Your task to perform on an android device: open app "Roku - Official Remote Control" (install if not already installed) Image 0: 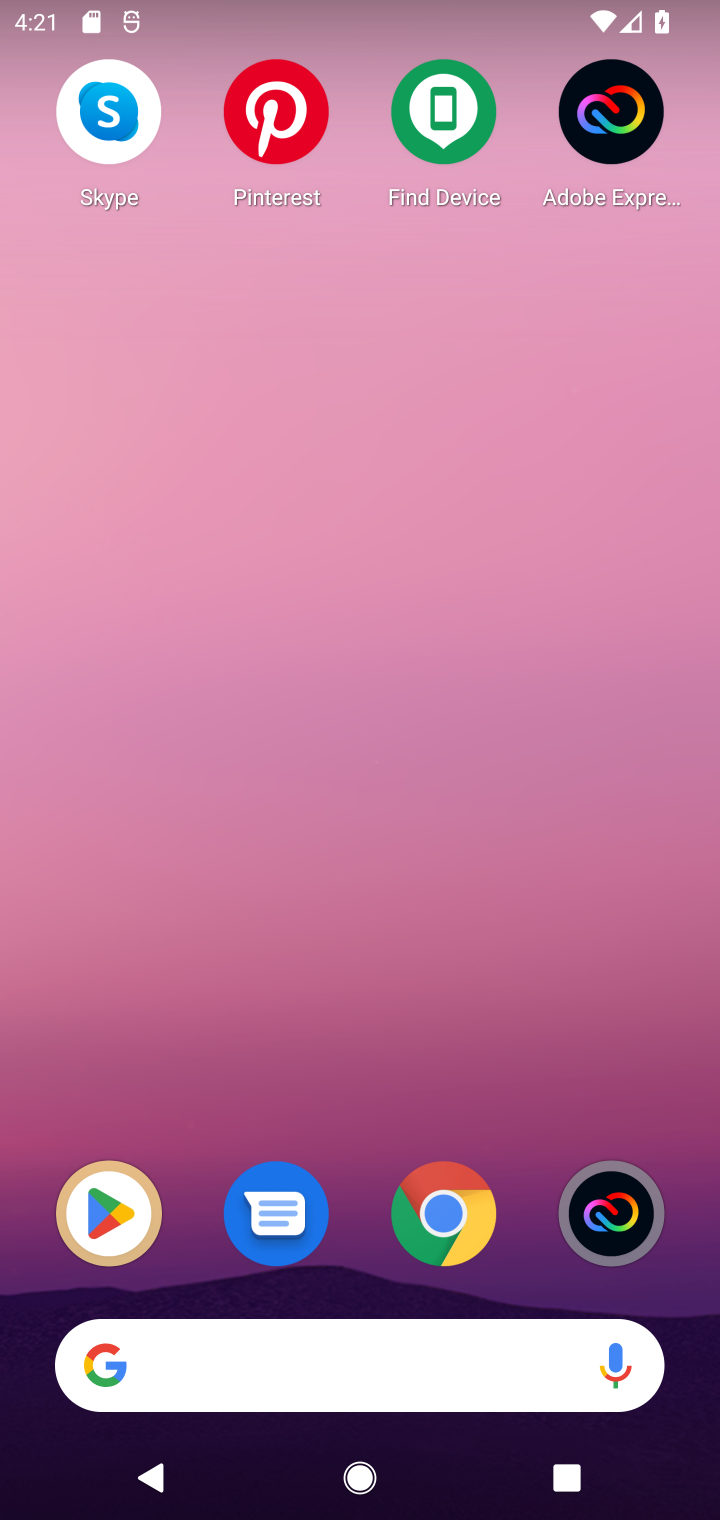
Step 0: press home button
Your task to perform on an android device: open app "Roku - Official Remote Control" (install if not already installed) Image 1: 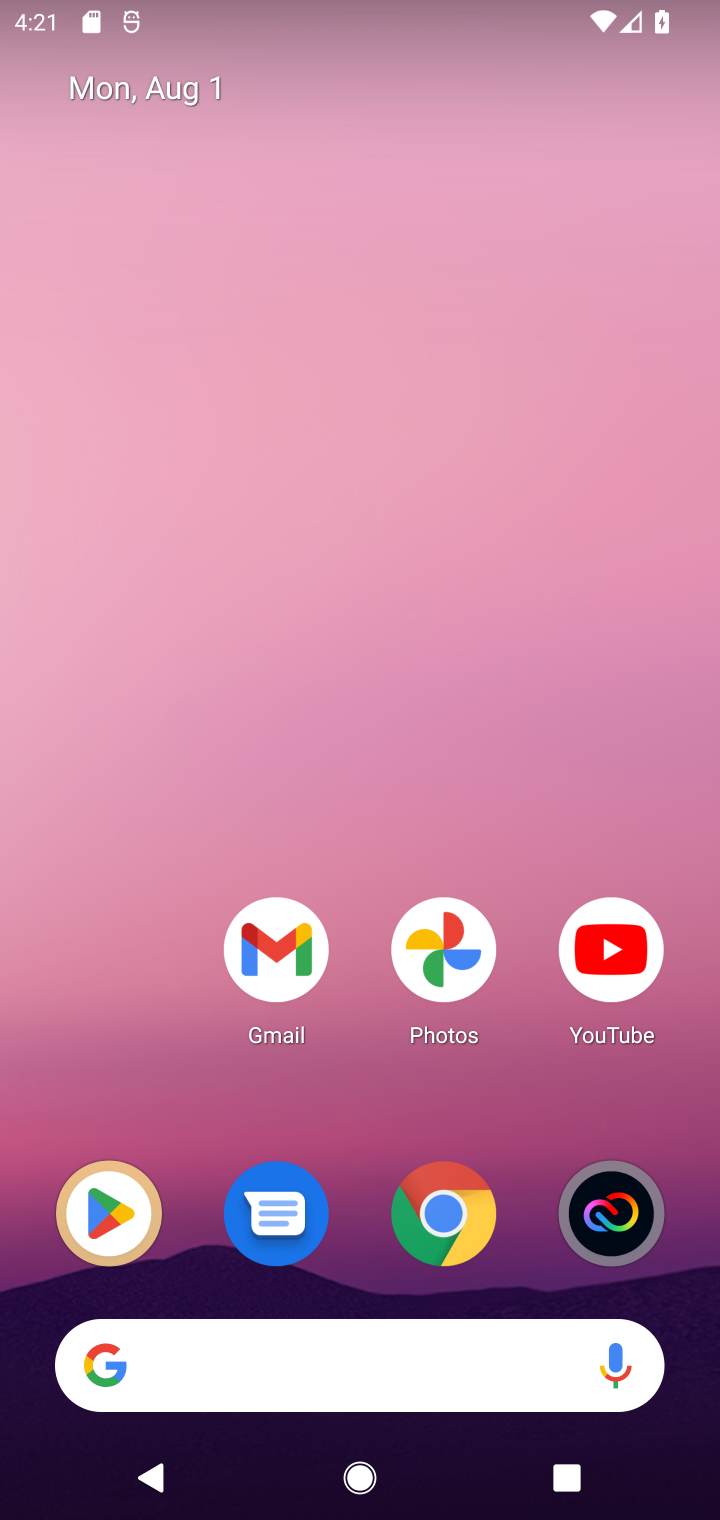
Step 1: drag from (546, 1026) to (552, 2)
Your task to perform on an android device: open app "Roku - Official Remote Control" (install if not already installed) Image 2: 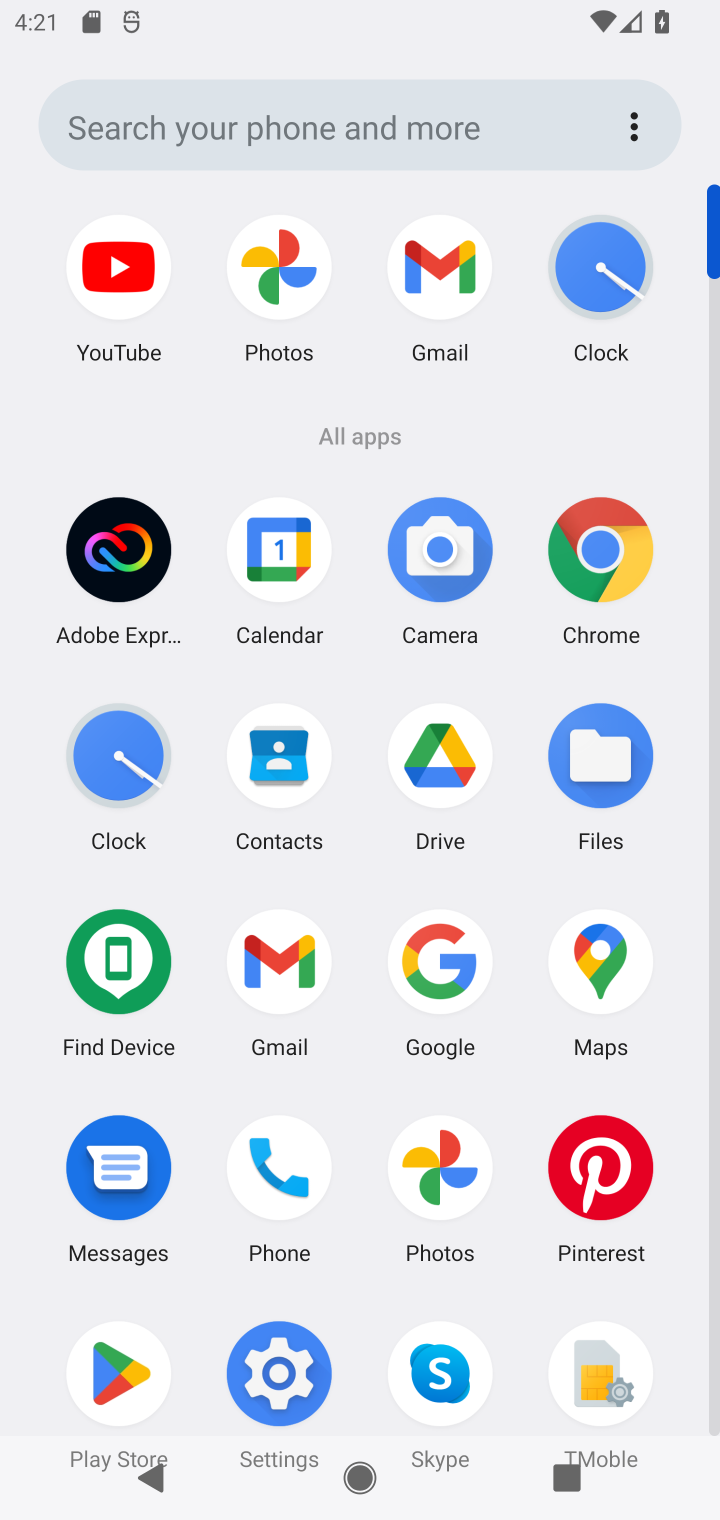
Step 2: drag from (510, 1091) to (656, 235)
Your task to perform on an android device: open app "Roku - Official Remote Control" (install if not already installed) Image 3: 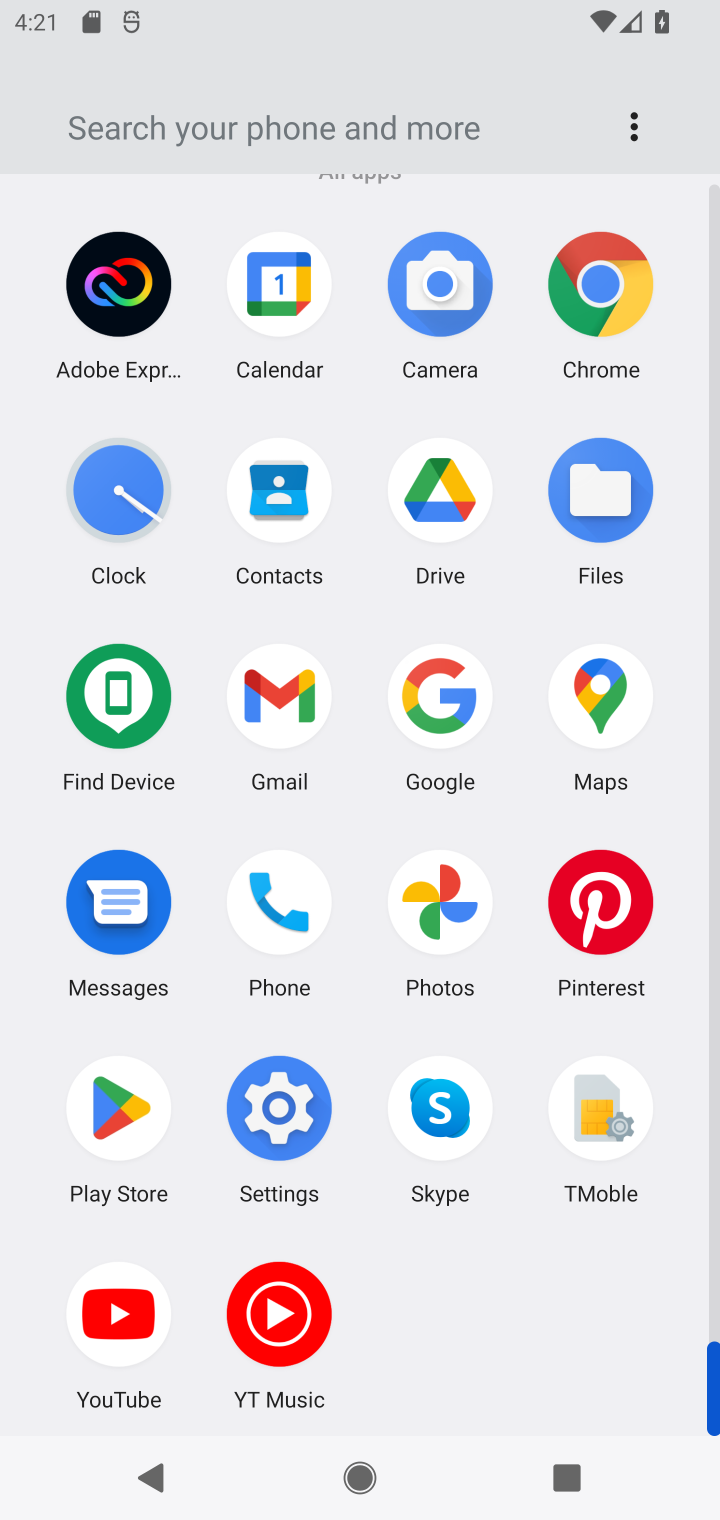
Step 3: click (120, 1101)
Your task to perform on an android device: open app "Roku - Official Remote Control" (install if not already installed) Image 4: 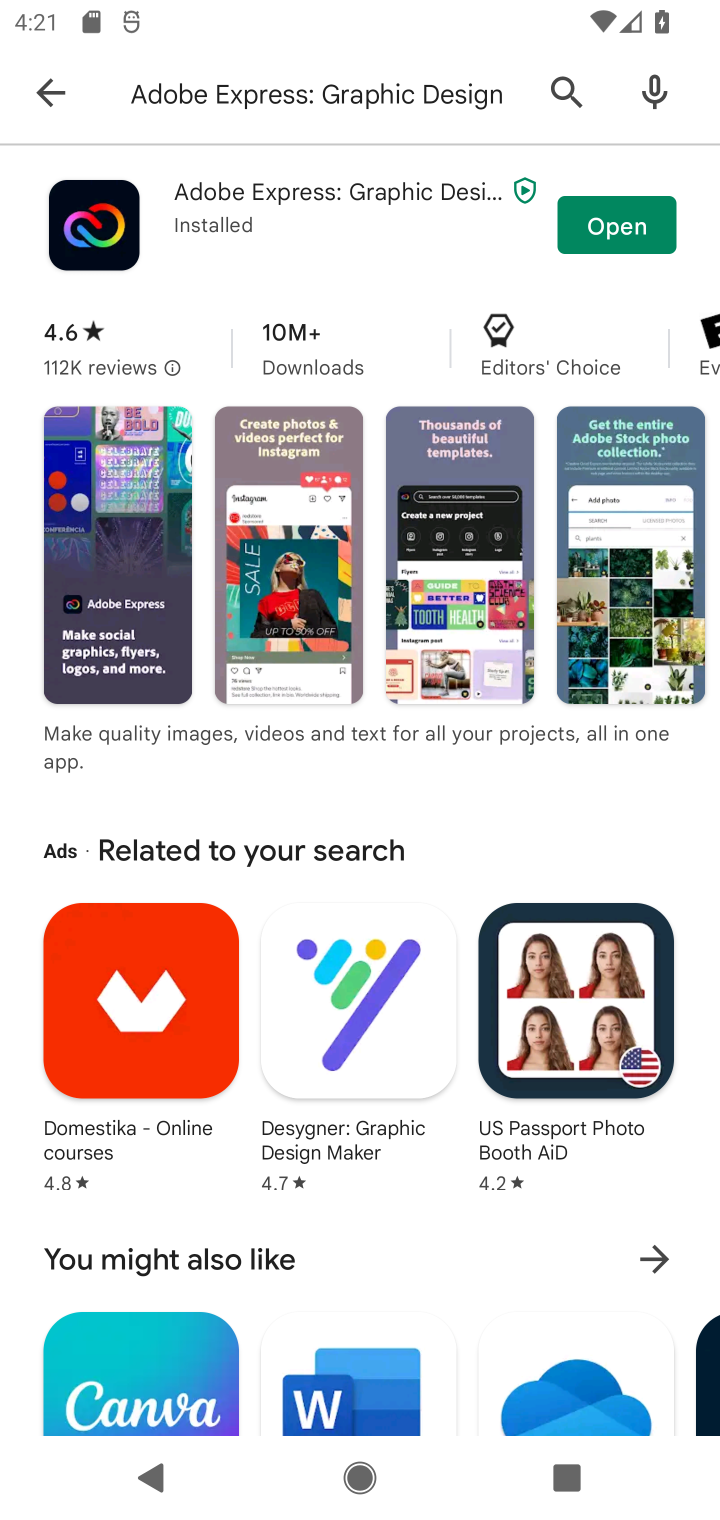
Step 4: click (427, 97)
Your task to perform on an android device: open app "Roku - Official Remote Control" (install if not already installed) Image 5: 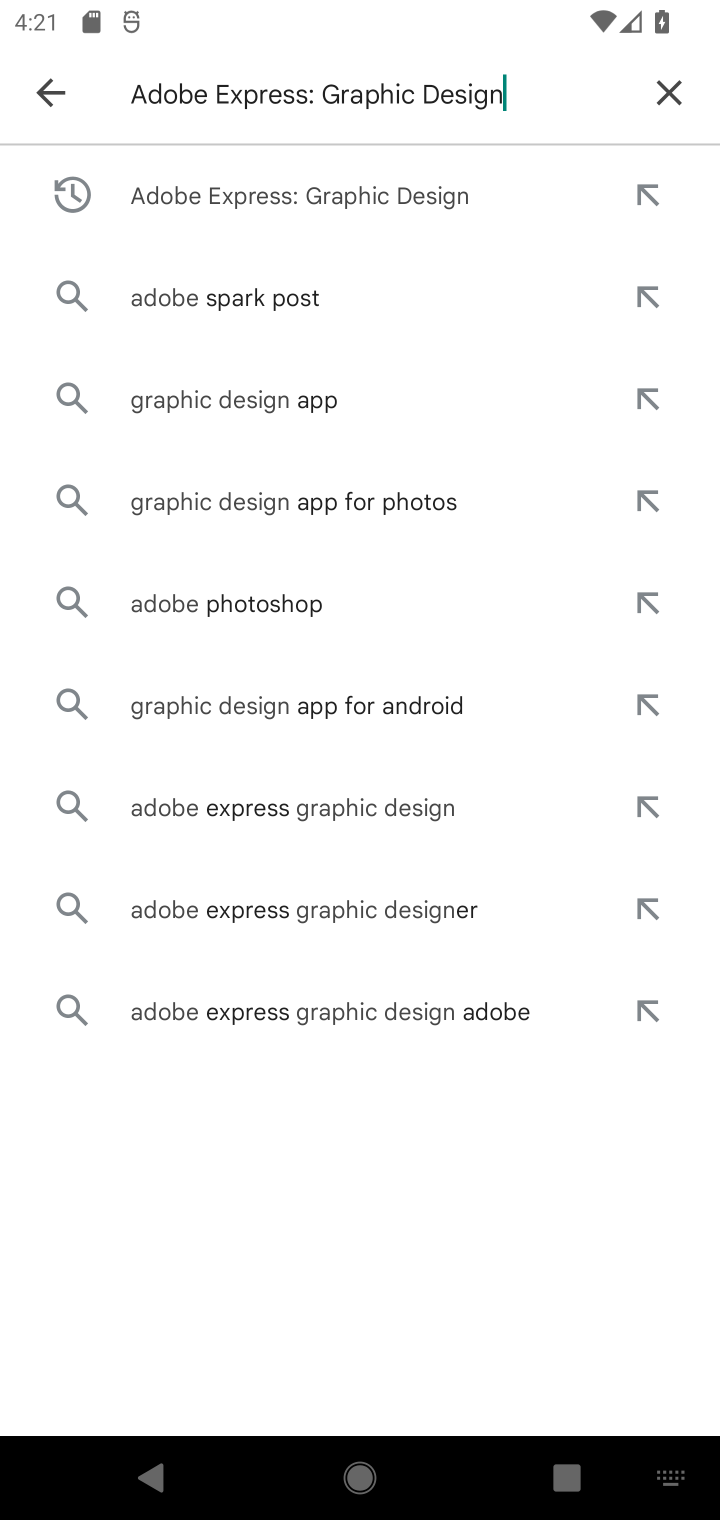
Step 5: click (694, 93)
Your task to perform on an android device: open app "Roku - Official Remote Control" (install if not already installed) Image 6: 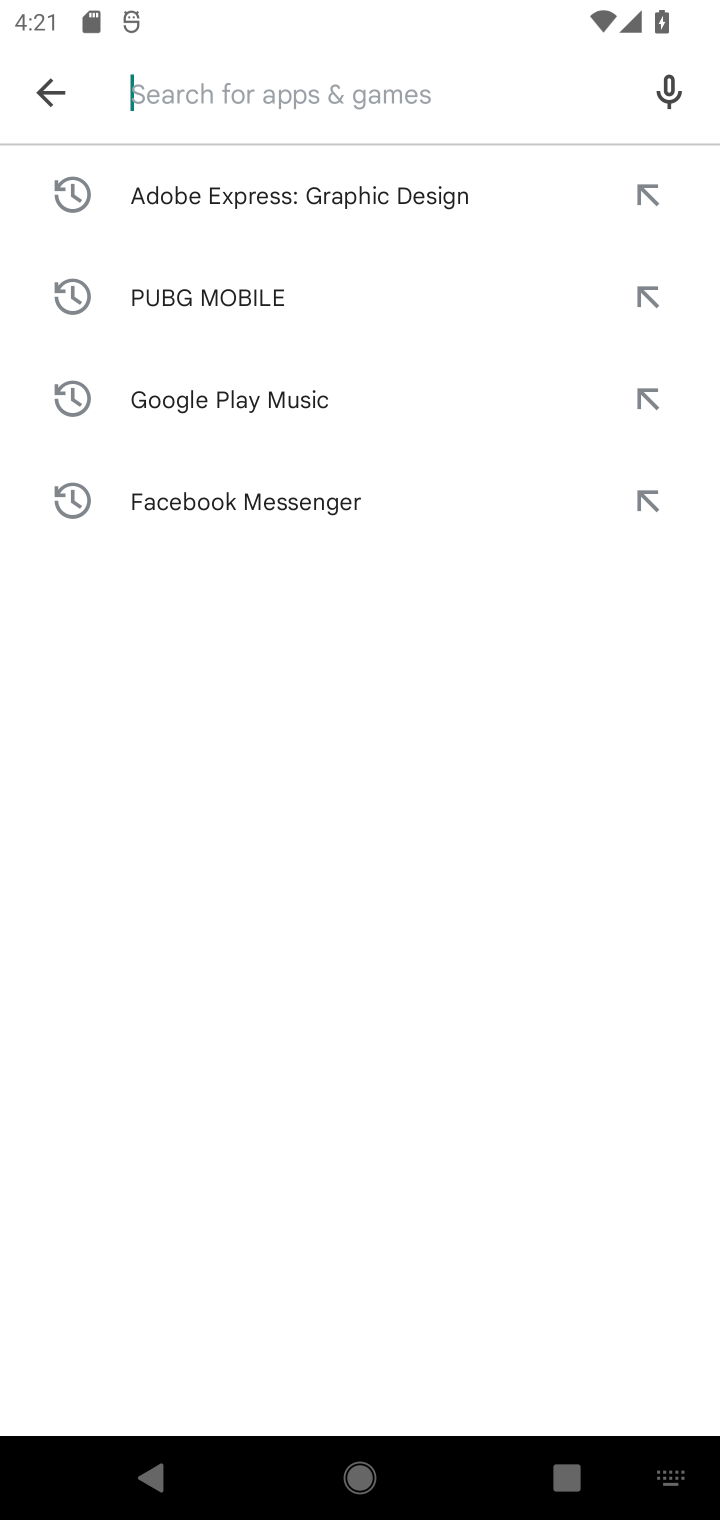
Step 6: type "Roku - Official Remote Control"
Your task to perform on an android device: open app "Roku - Official Remote Control" (install if not already installed) Image 7: 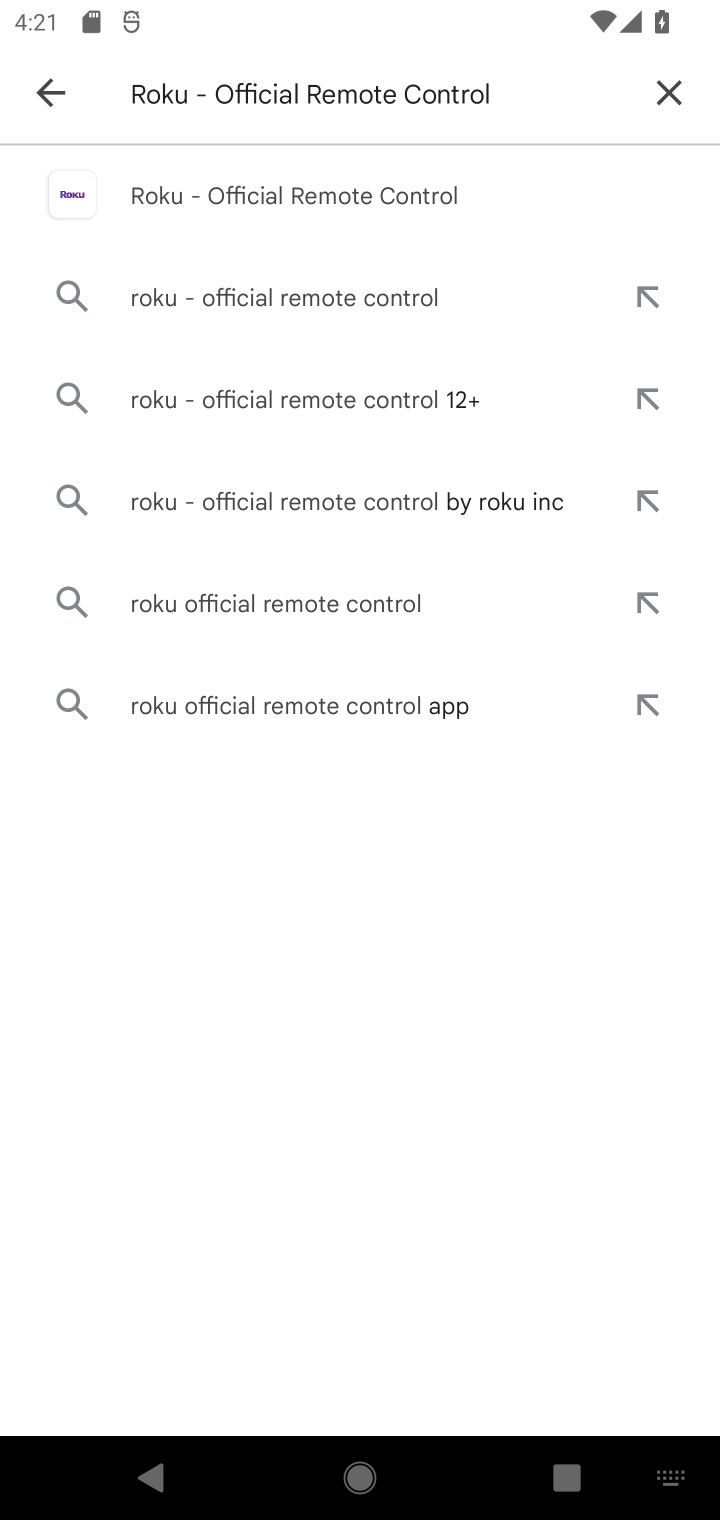
Step 7: press enter
Your task to perform on an android device: open app "Roku - Official Remote Control" (install if not already installed) Image 8: 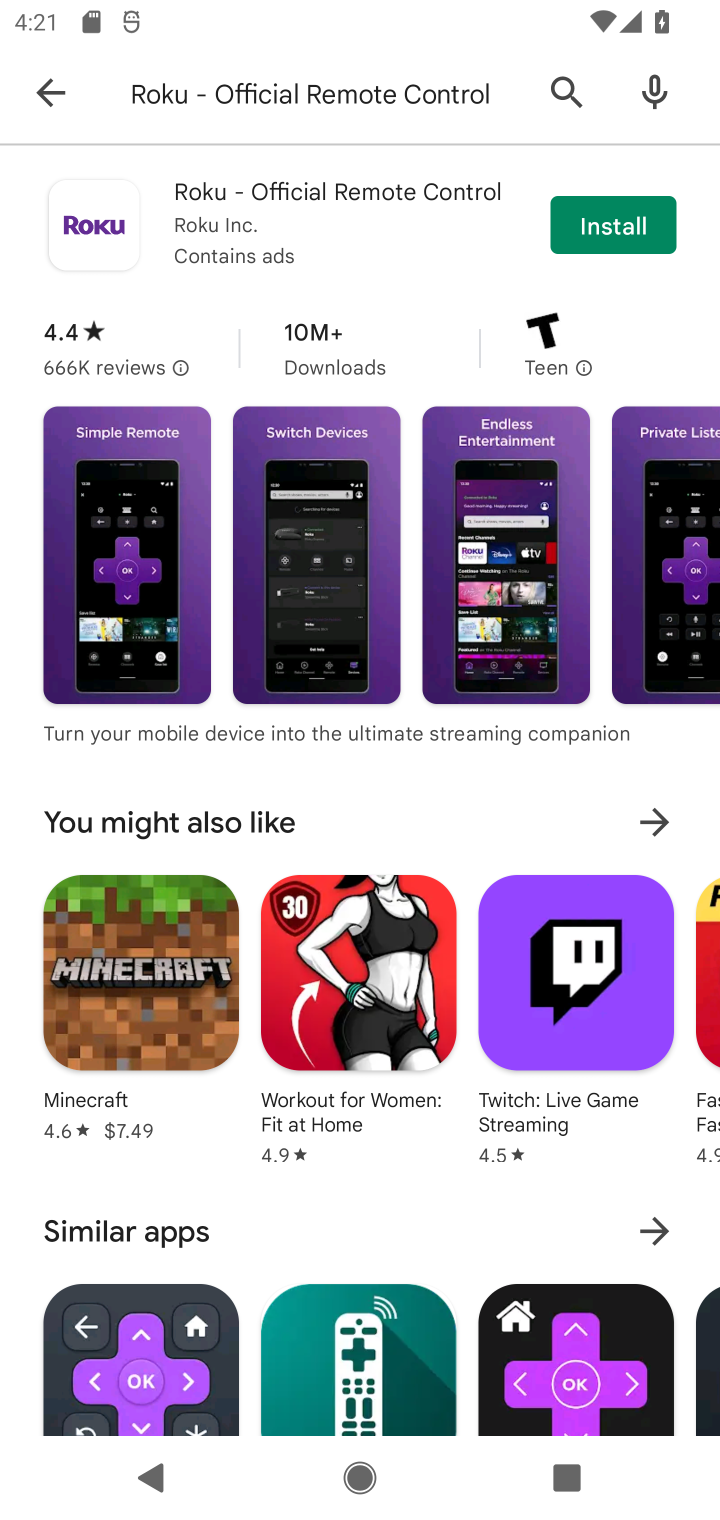
Step 8: click (612, 249)
Your task to perform on an android device: open app "Roku - Official Remote Control" (install if not already installed) Image 9: 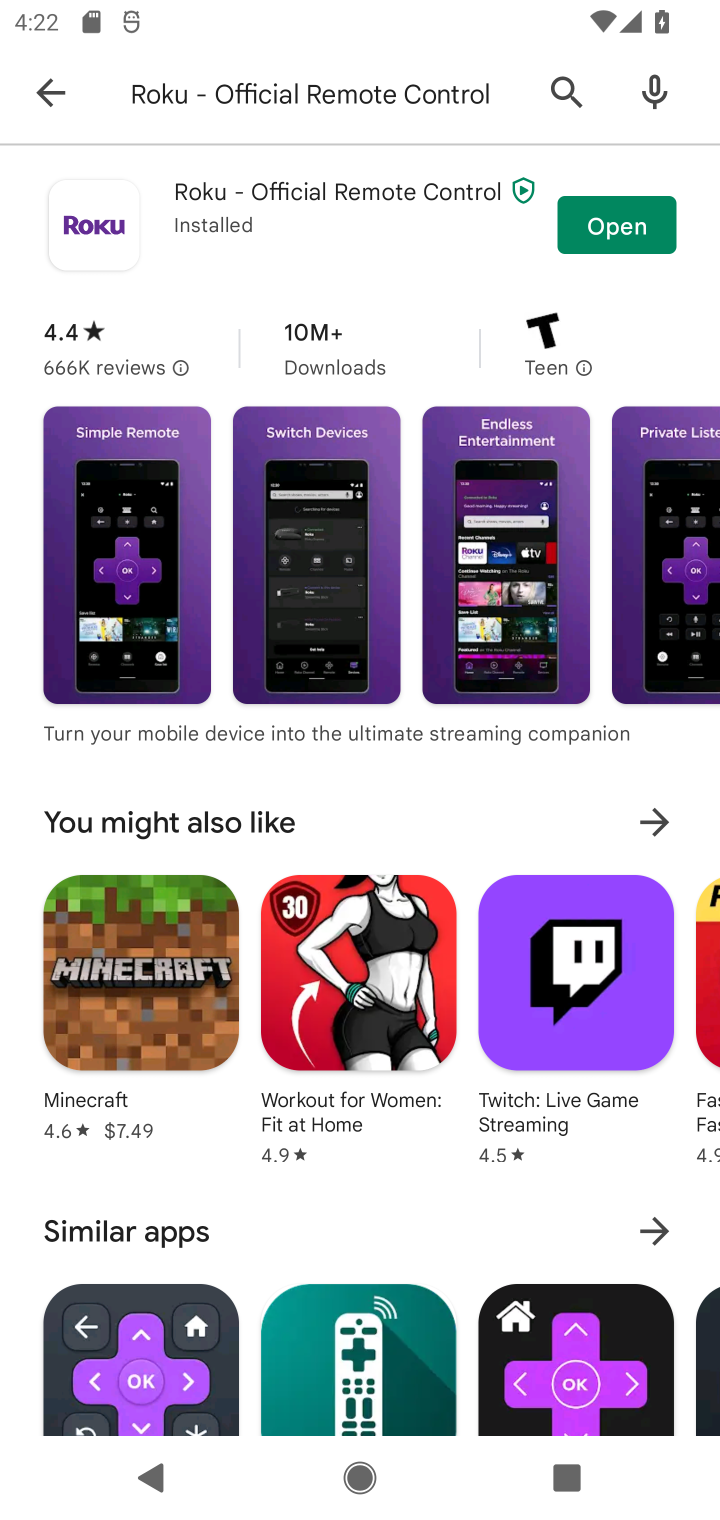
Step 9: click (621, 205)
Your task to perform on an android device: open app "Roku - Official Remote Control" (install if not already installed) Image 10: 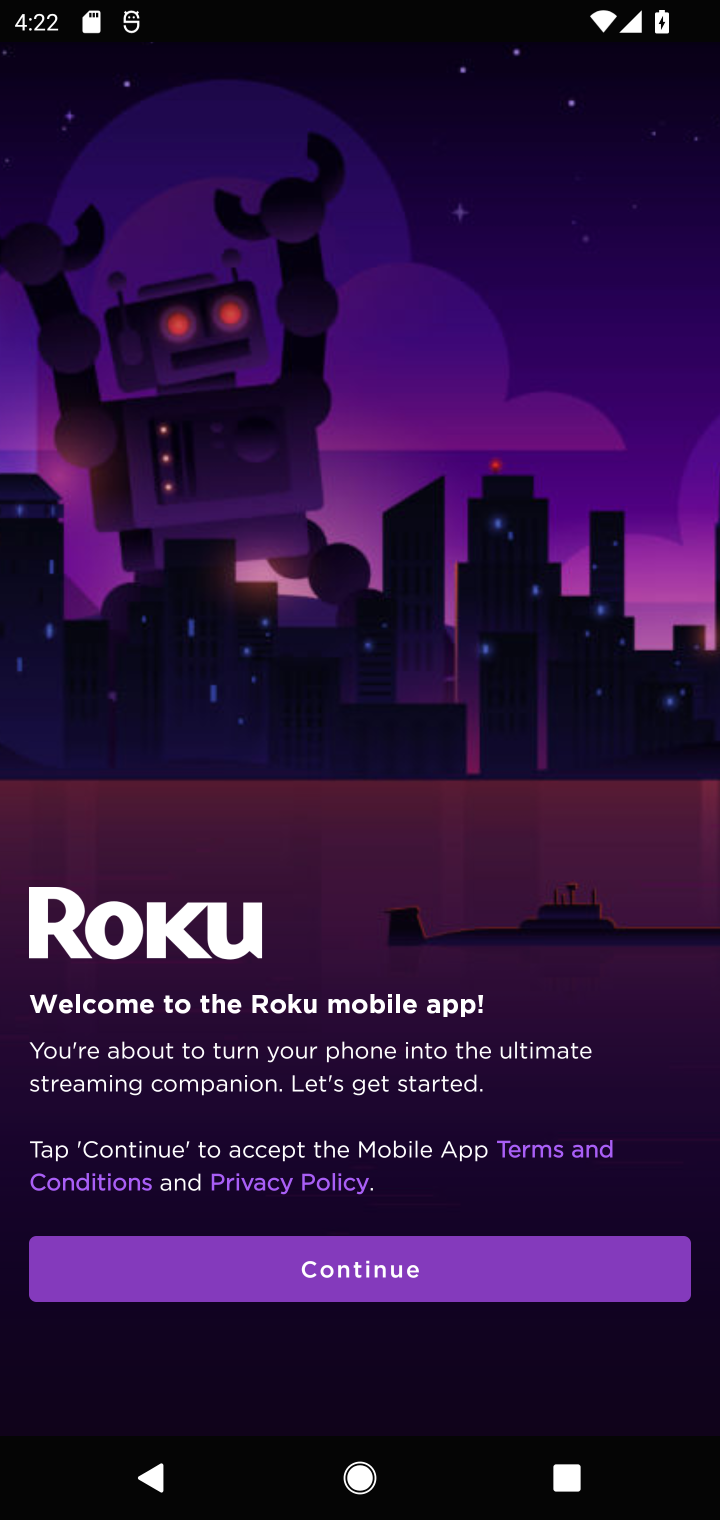
Step 10: task complete